Your task to perform on an android device: star an email in the gmail app Image 0: 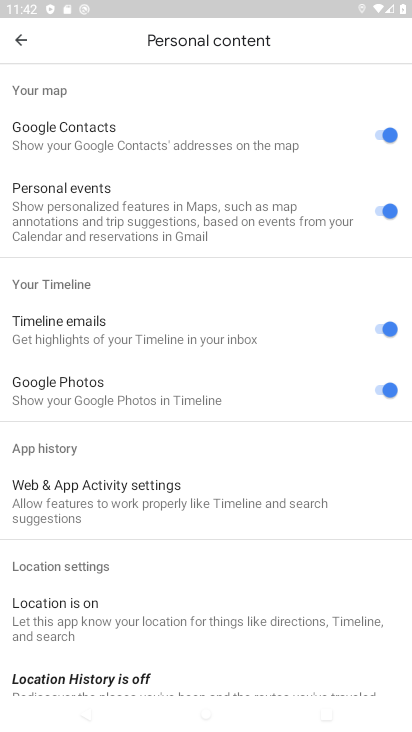
Step 0: press home button
Your task to perform on an android device: star an email in the gmail app Image 1: 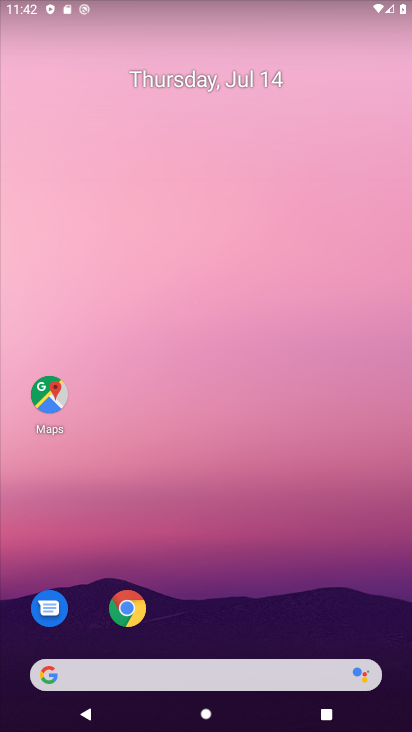
Step 1: drag from (211, 643) to (203, 120)
Your task to perform on an android device: star an email in the gmail app Image 2: 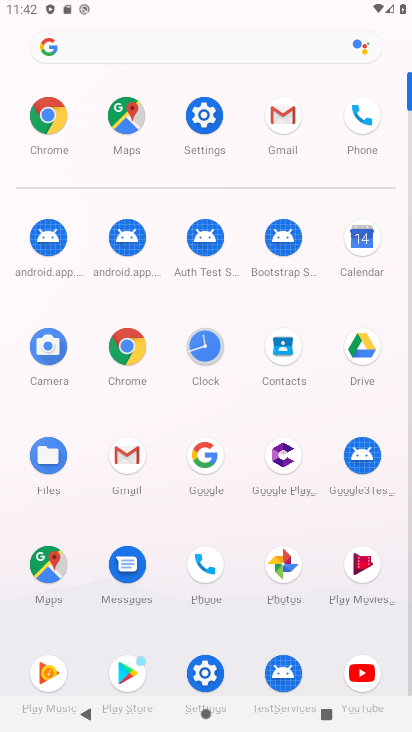
Step 2: click (132, 455)
Your task to perform on an android device: star an email in the gmail app Image 3: 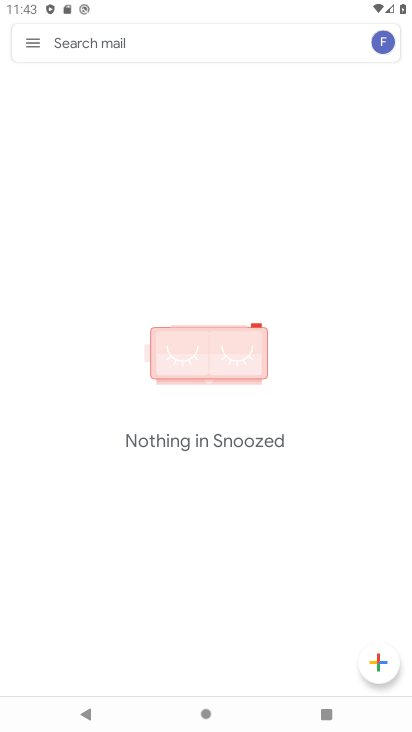
Step 3: click (34, 37)
Your task to perform on an android device: star an email in the gmail app Image 4: 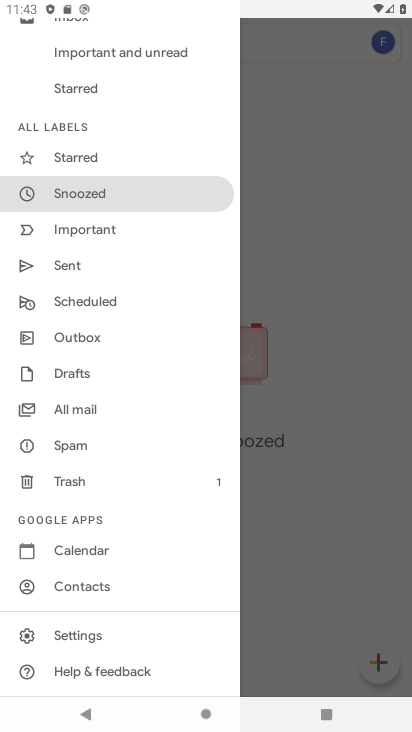
Step 4: click (95, 165)
Your task to perform on an android device: star an email in the gmail app Image 5: 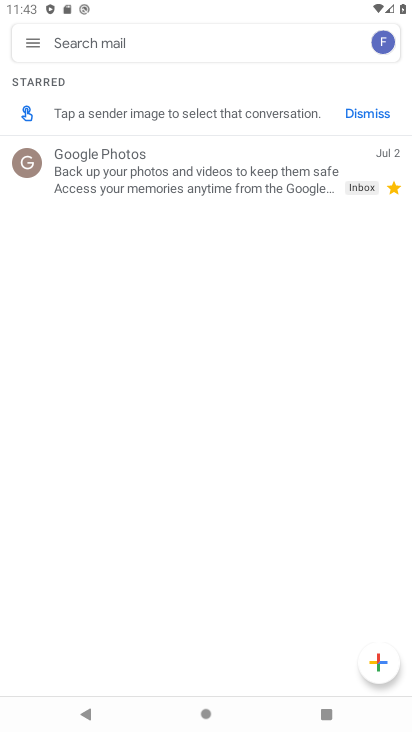
Step 5: task complete